Your task to perform on an android device: Open Chrome and go to the settings page Image 0: 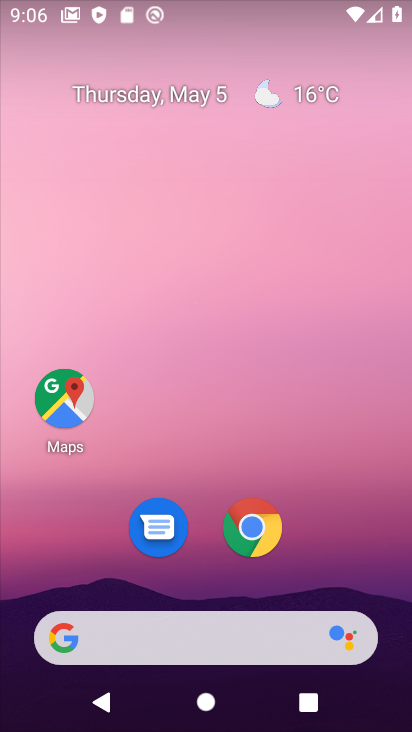
Step 0: drag from (205, 584) to (232, 29)
Your task to perform on an android device: Open Chrome and go to the settings page Image 1: 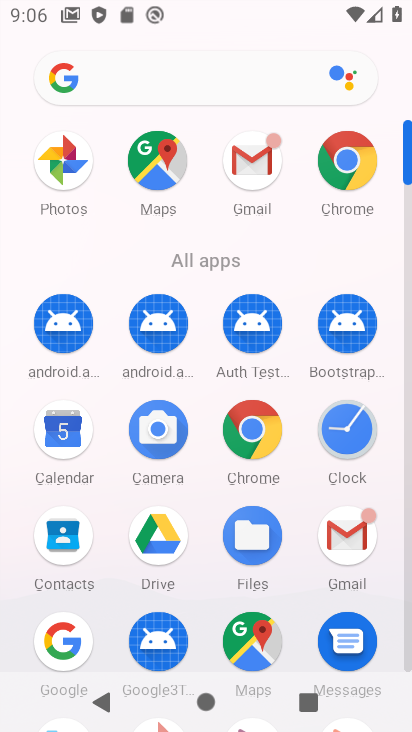
Step 1: press home button
Your task to perform on an android device: Open Chrome and go to the settings page Image 2: 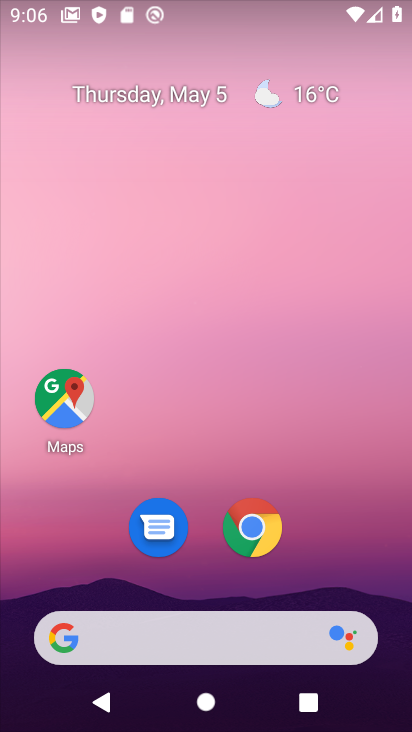
Step 2: drag from (209, 575) to (198, 9)
Your task to perform on an android device: Open Chrome and go to the settings page Image 3: 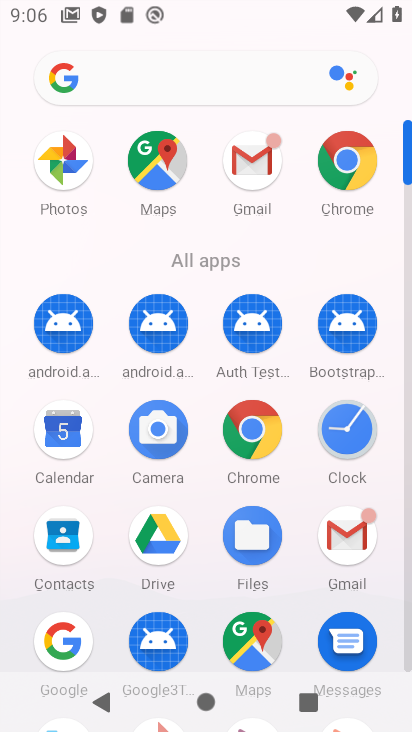
Step 3: click (252, 425)
Your task to perform on an android device: Open Chrome and go to the settings page Image 4: 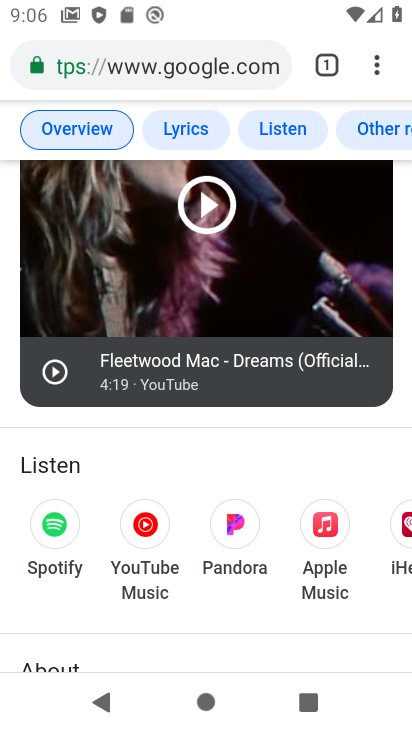
Step 4: click (374, 58)
Your task to perform on an android device: Open Chrome and go to the settings page Image 5: 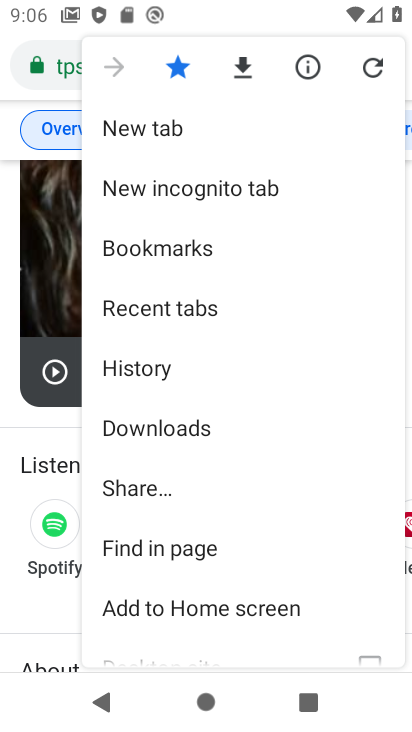
Step 5: drag from (191, 576) to (185, 86)
Your task to perform on an android device: Open Chrome and go to the settings page Image 6: 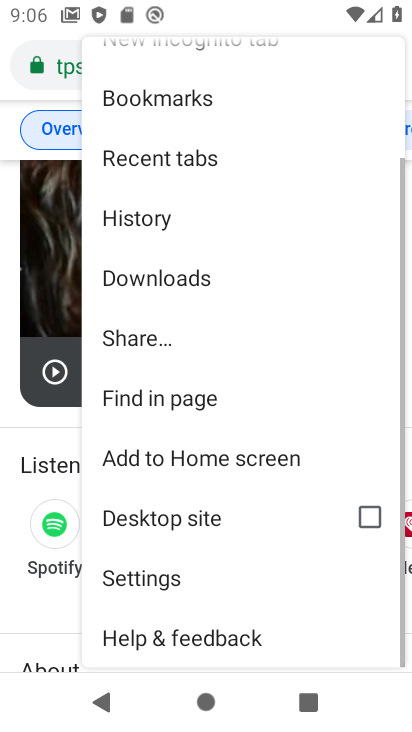
Step 6: click (191, 574)
Your task to perform on an android device: Open Chrome and go to the settings page Image 7: 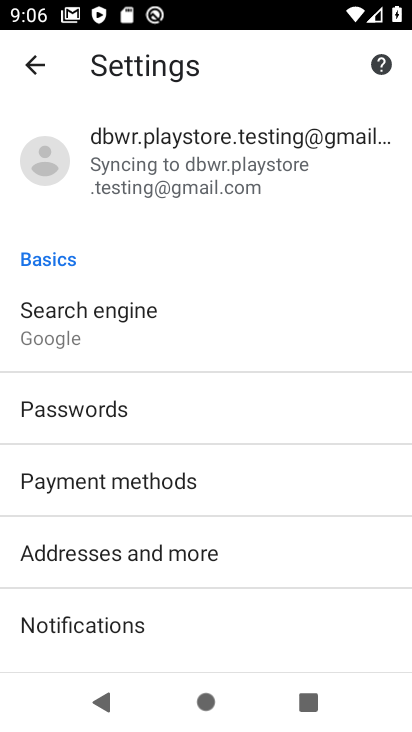
Step 7: task complete